Your task to perform on an android device: Check the weather Image 0: 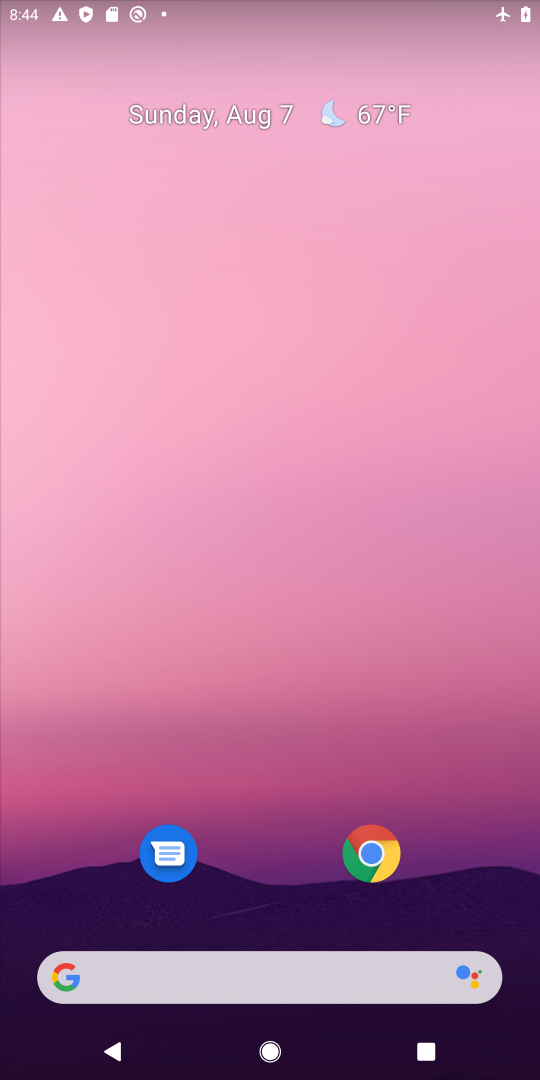
Step 0: drag from (338, 898) to (347, 371)
Your task to perform on an android device: Check the weather Image 1: 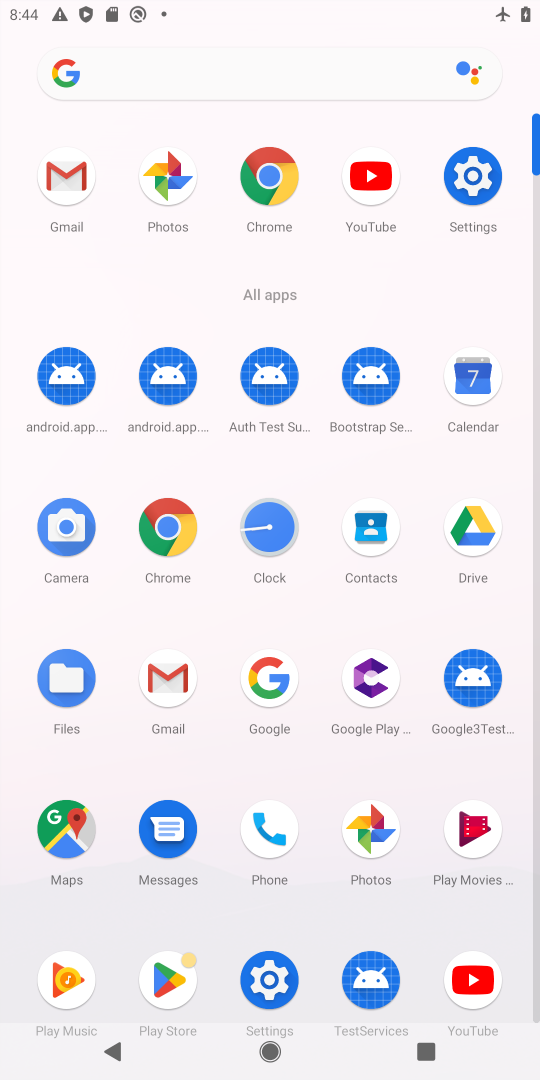
Step 1: click (280, 169)
Your task to perform on an android device: Check the weather Image 2: 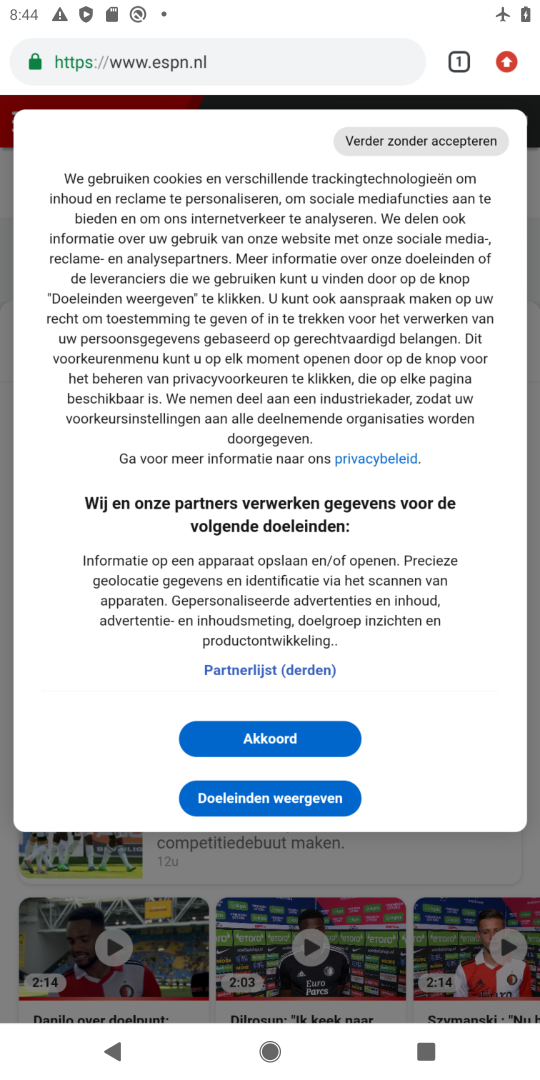
Step 2: click (514, 55)
Your task to perform on an android device: Check the weather Image 3: 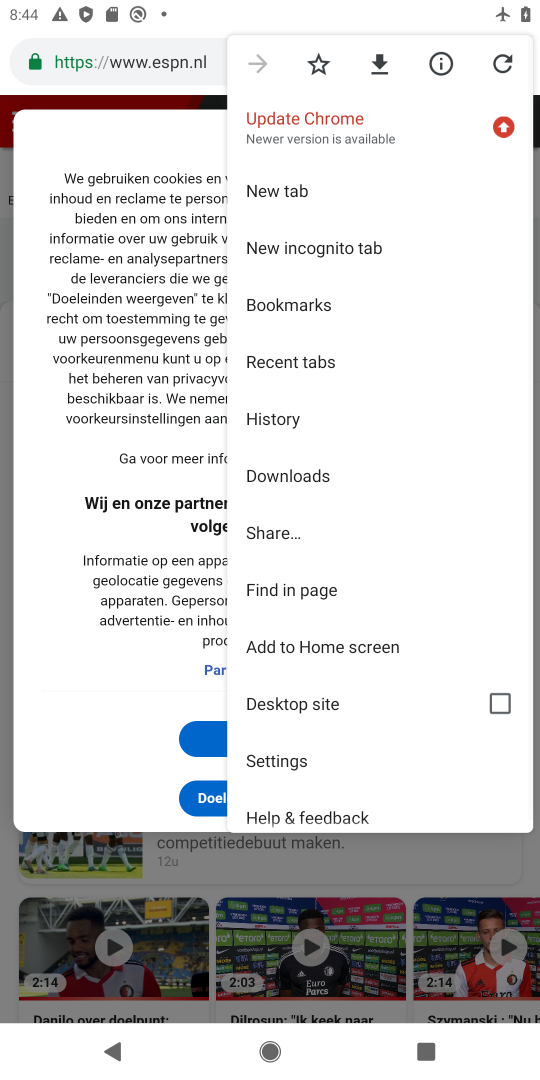
Step 3: click (290, 205)
Your task to perform on an android device: Check the weather Image 4: 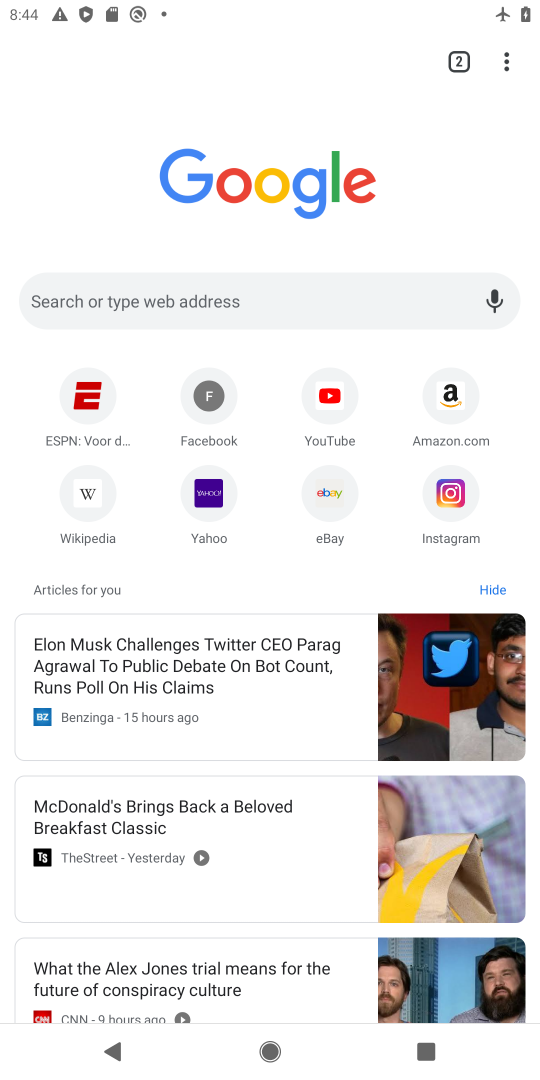
Step 4: click (284, 305)
Your task to perform on an android device: Check the weather Image 5: 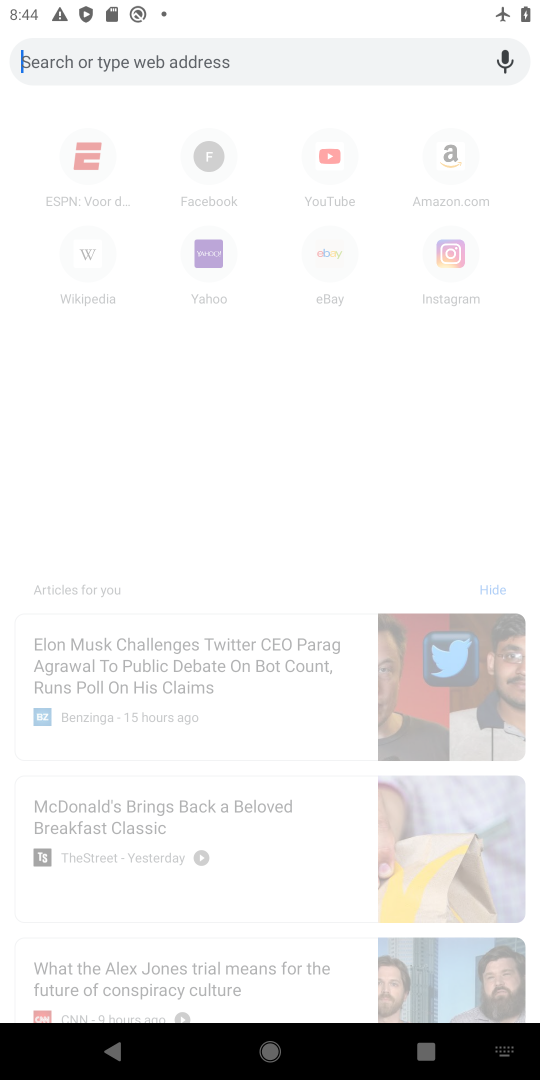
Step 5: type "Check the weather "
Your task to perform on an android device: Check the weather Image 6: 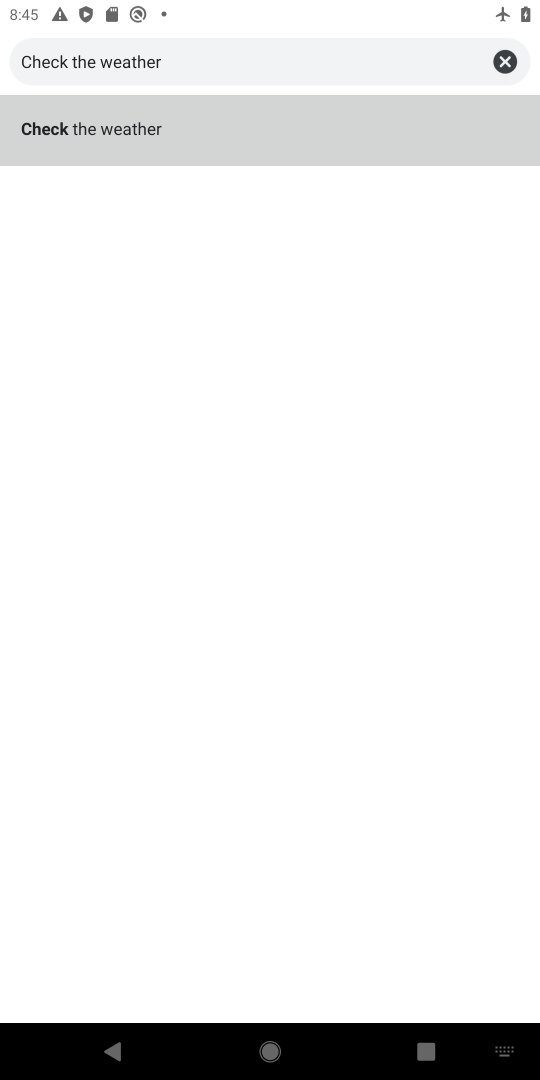
Step 6: click (308, 128)
Your task to perform on an android device: Check the weather Image 7: 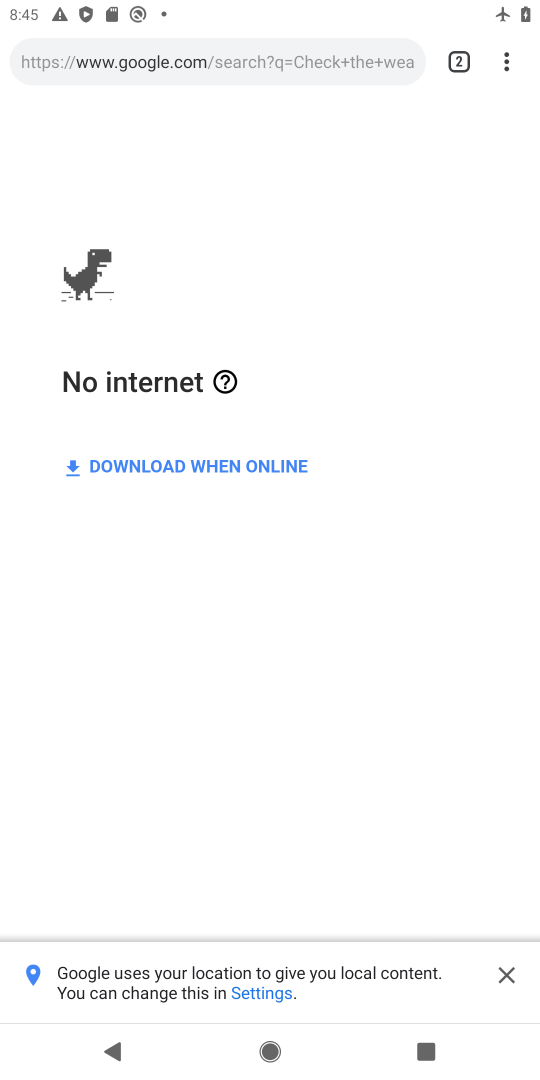
Step 7: task complete